Your task to perform on an android device: Open calendar and show me the second week of next month Image 0: 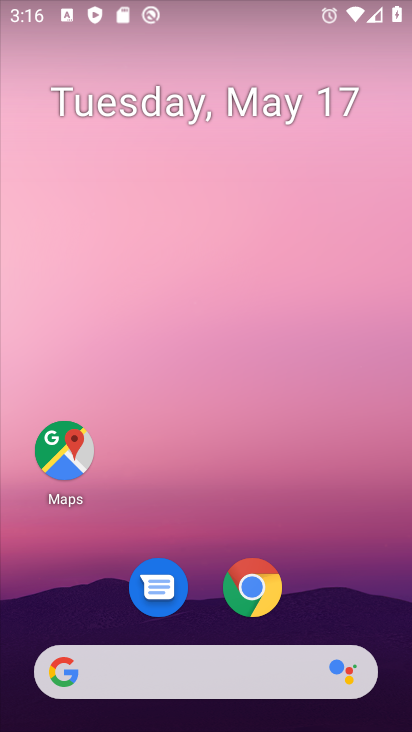
Step 0: drag from (193, 616) to (267, 132)
Your task to perform on an android device: Open calendar and show me the second week of next month Image 1: 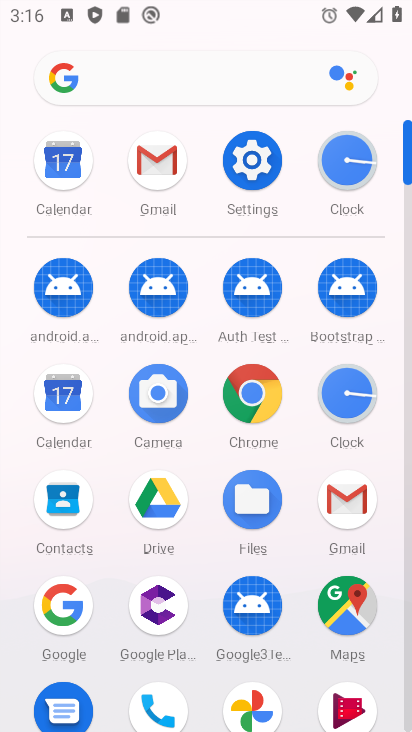
Step 1: click (53, 392)
Your task to perform on an android device: Open calendar and show me the second week of next month Image 2: 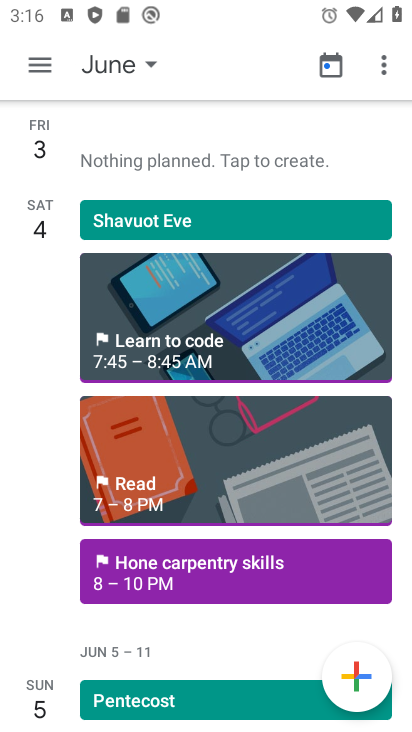
Step 2: drag from (212, 674) to (298, 339)
Your task to perform on an android device: Open calendar and show me the second week of next month Image 3: 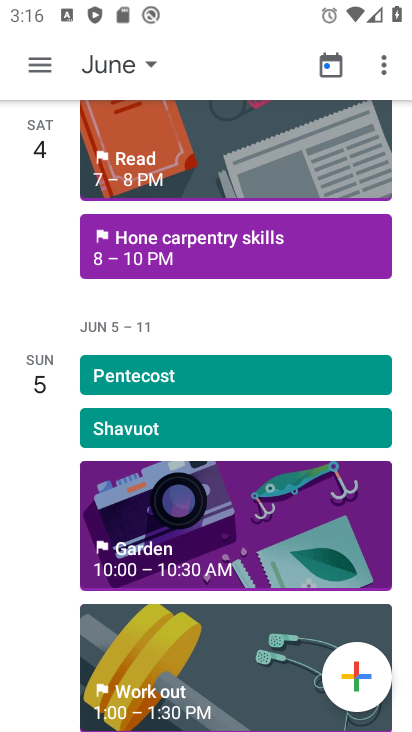
Step 3: click (126, 61)
Your task to perform on an android device: Open calendar and show me the second week of next month Image 4: 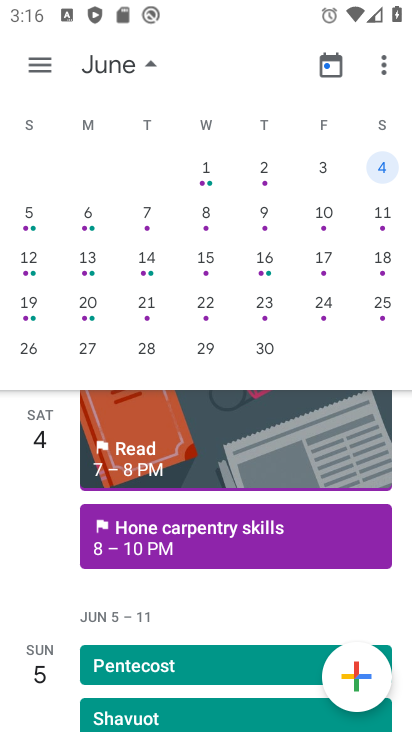
Step 4: click (376, 309)
Your task to perform on an android device: Open calendar and show me the second week of next month Image 5: 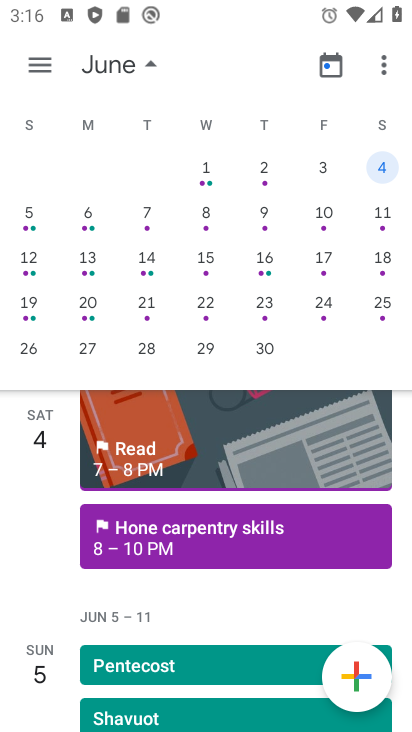
Step 5: click (252, 218)
Your task to perform on an android device: Open calendar and show me the second week of next month Image 6: 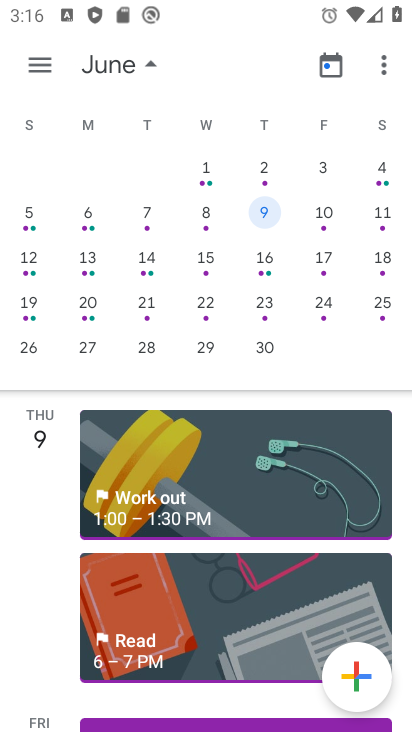
Step 6: task complete